Your task to perform on an android device: allow notifications from all sites in the chrome app Image 0: 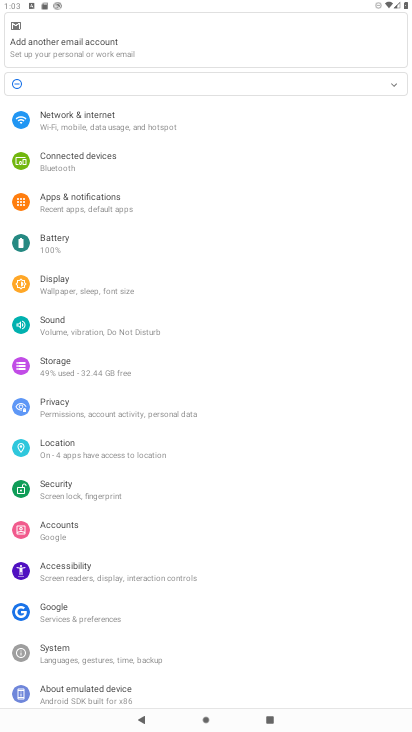
Step 0: press home button
Your task to perform on an android device: allow notifications from all sites in the chrome app Image 1: 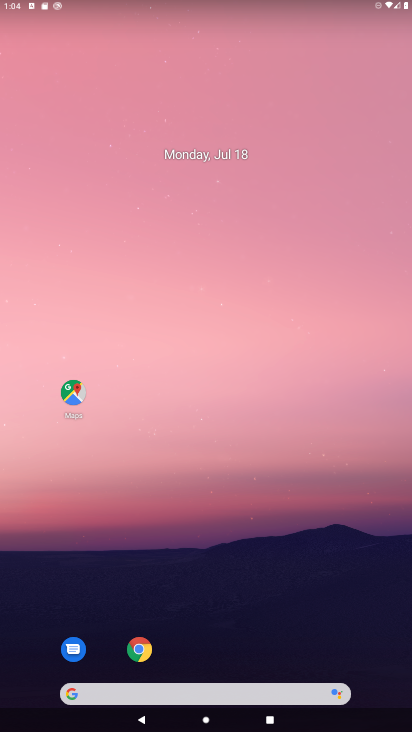
Step 1: click (137, 652)
Your task to perform on an android device: allow notifications from all sites in the chrome app Image 2: 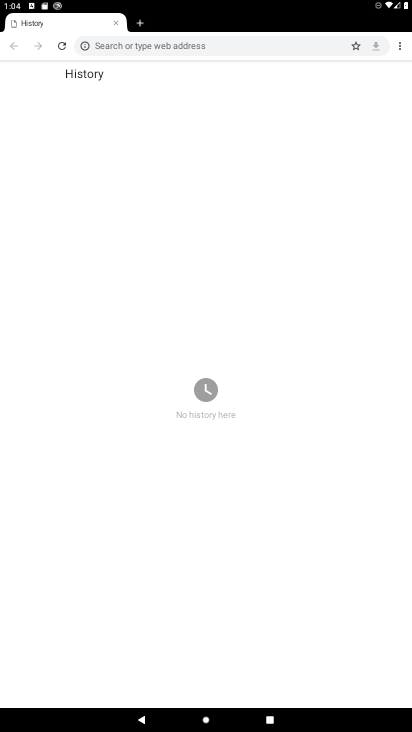
Step 2: click (401, 46)
Your task to perform on an android device: allow notifications from all sites in the chrome app Image 3: 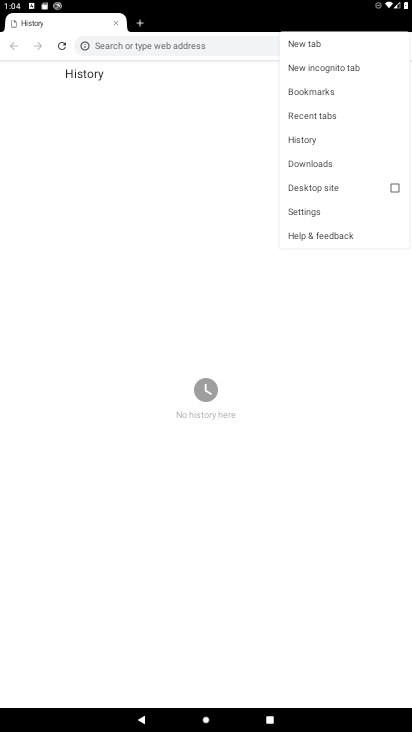
Step 3: click (307, 214)
Your task to perform on an android device: allow notifications from all sites in the chrome app Image 4: 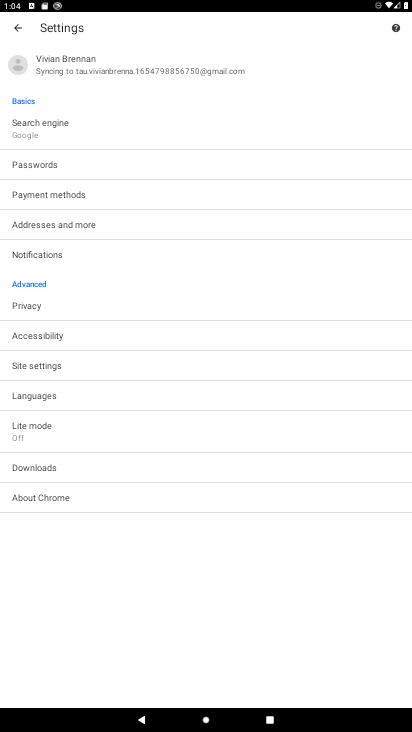
Step 4: click (51, 365)
Your task to perform on an android device: allow notifications from all sites in the chrome app Image 5: 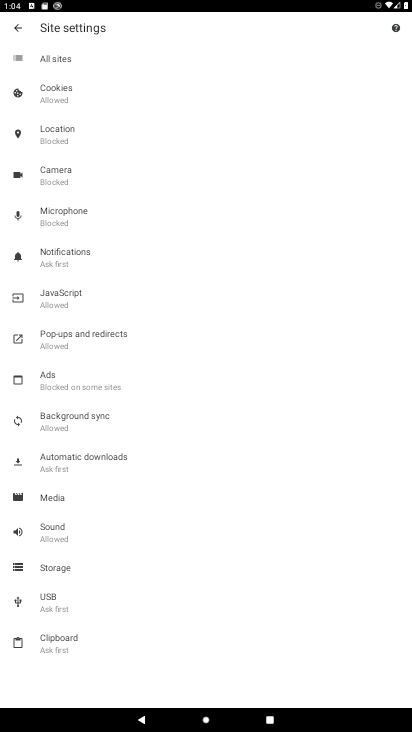
Step 5: click (51, 249)
Your task to perform on an android device: allow notifications from all sites in the chrome app Image 6: 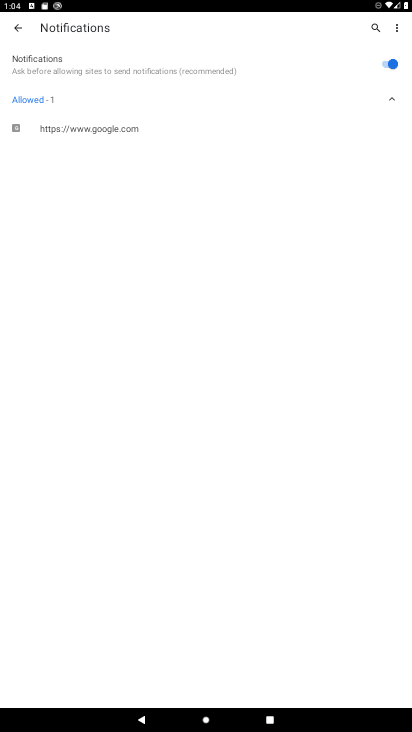
Step 6: task complete